Your task to perform on an android device: find photos in the google photos app Image 0: 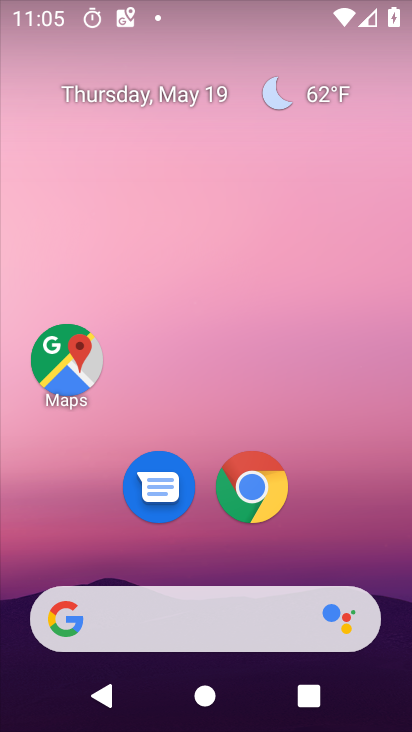
Step 0: drag from (284, 540) to (242, 222)
Your task to perform on an android device: find photos in the google photos app Image 1: 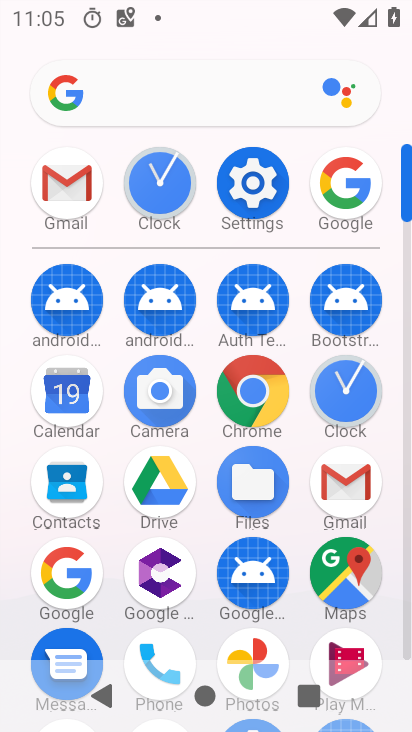
Step 1: drag from (273, 619) to (284, 375)
Your task to perform on an android device: find photos in the google photos app Image 2: 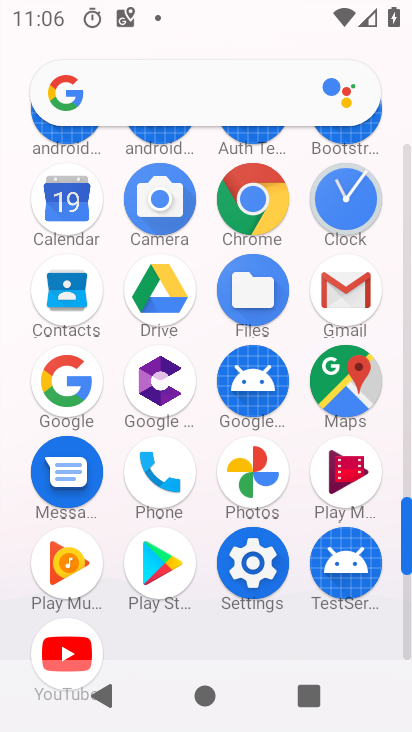
Step 2: click (240, 473)
Your task to perform on an android device: find photos in the google photos app Image 3: 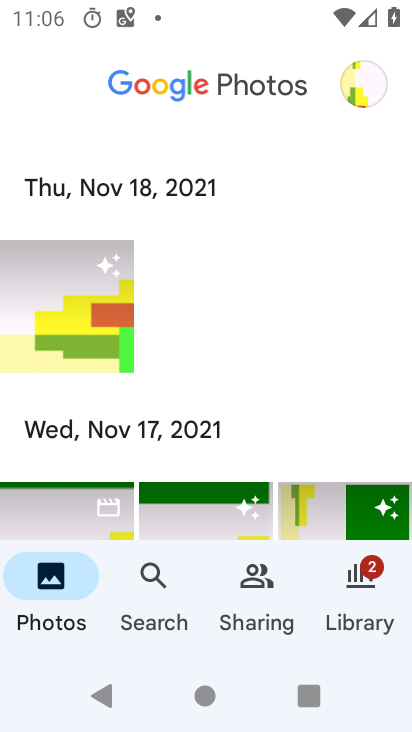
Step 3: task complete